Your task to perform on an android device: Open the calendar and show me this week's events? Image 0: 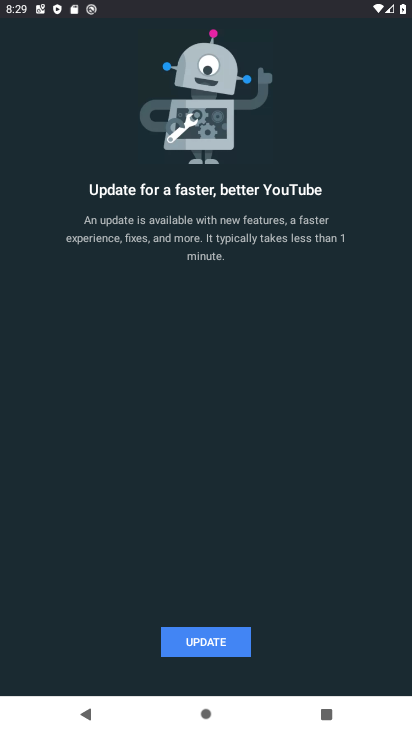
Step 0: click (55, 392)
Your task to perform on an android device: Open the calendar and show me this week's events? Image 1: 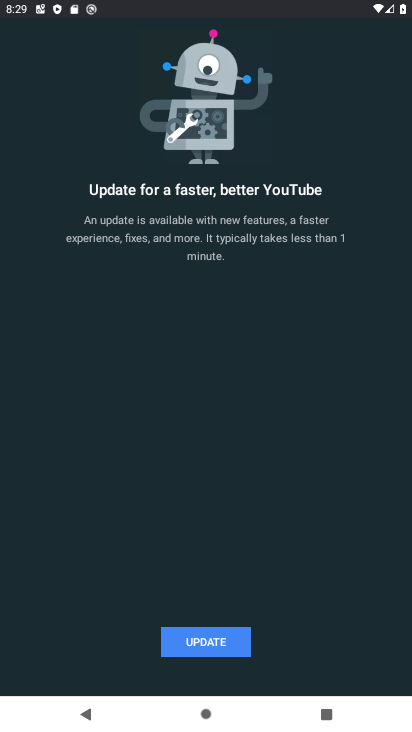
Step 1: press home button
Your task to perform on an android device: Open the calendar and show me this week's events? Image 2: 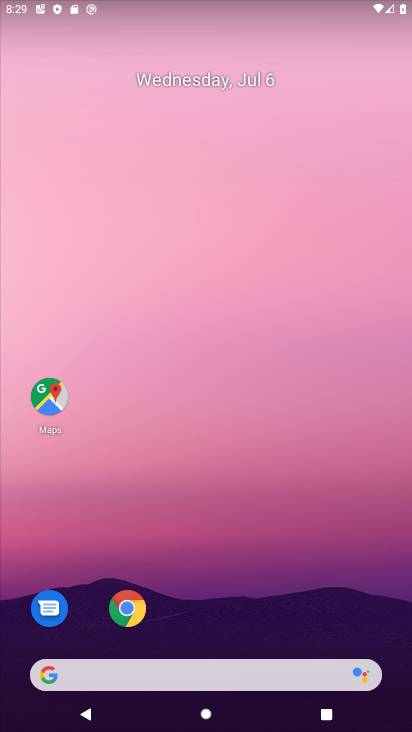
Step 2: drag from (177, 676) to (336, 207)
Your task to perform on an android device: Open the calendar and show me this week's events? Image 3: 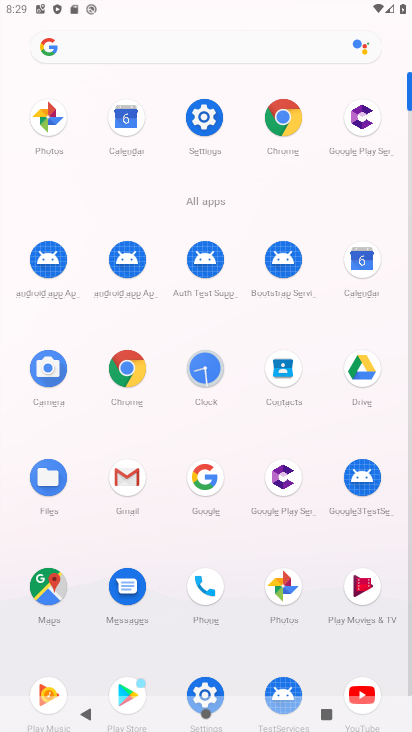
Step 3: click (124, 119)
Your task to perform on an android device: Open the calendar and show me this week's events? Image 4: 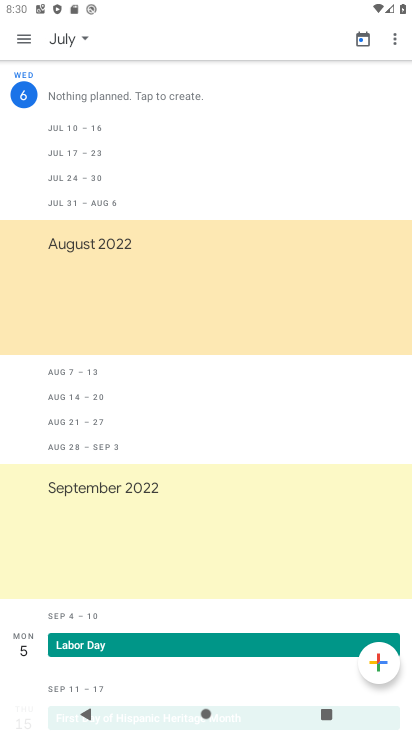
Step 4: click (62, 34)
Your task to perform on an android device: Open the calendar and show me this week's events? Image 5: 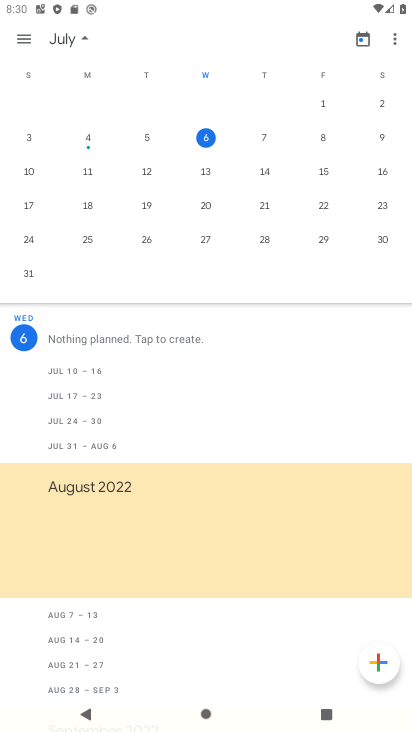
Step 5: task complete